Your task to perform on an android device: open app "Google Chrome" Image 0: 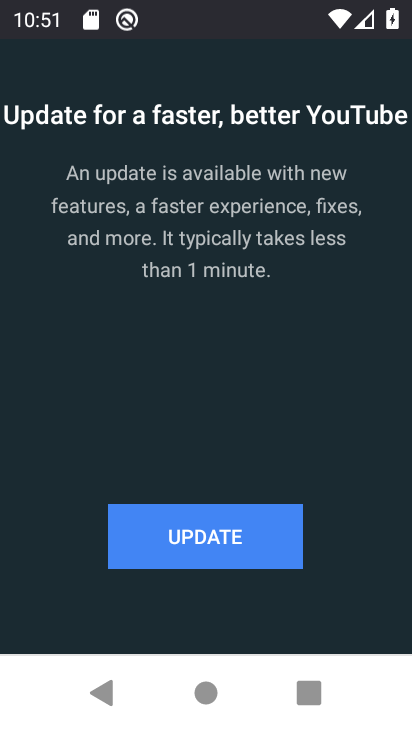
Step 0: press home button
Your task to perform on an android device: open app "Google Chrome" Image 1: 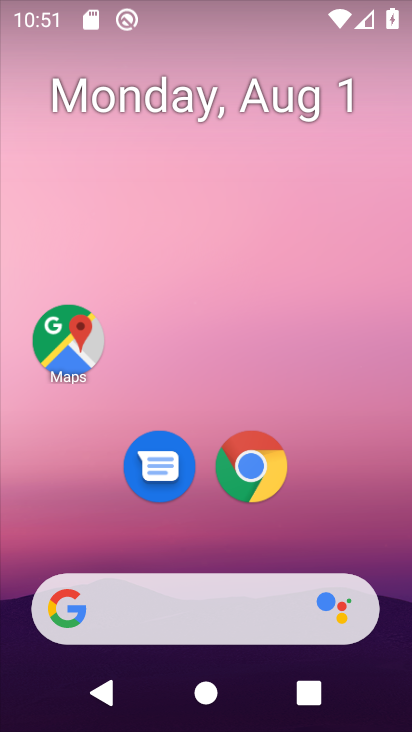
Step 1: drag from (239, 447) to (242, 199)
Your task to perform on an android device: open app "Google Chrome" Image 2: 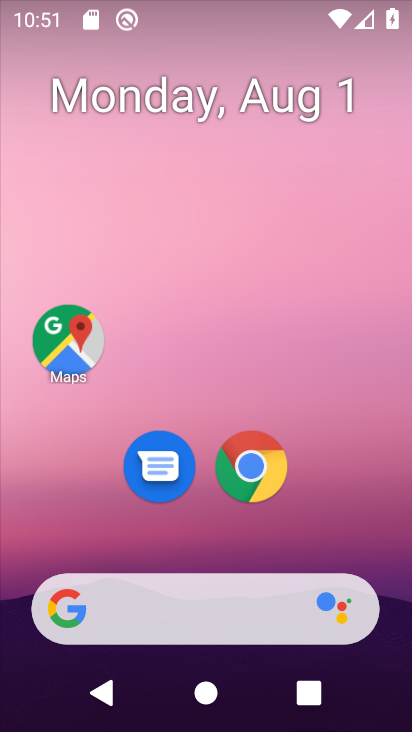
Step 2: click (256, 478)
Your task to perform on an android device: open app "Google Chrome" Image 3: 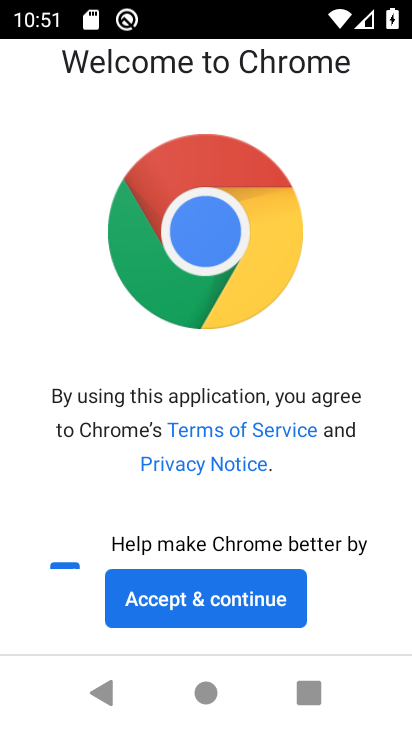
Step 3: click (205, 597)
Your task to perform on an android device: open app "Google Chrome" Image 4: 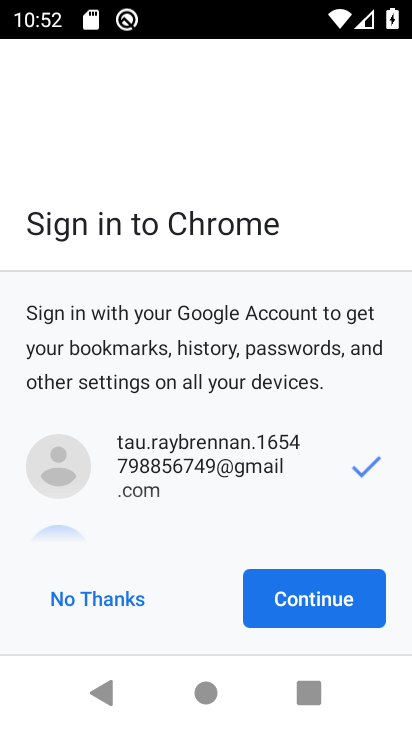
Step 4: task complete